Your task to perform on an android device: turn on sleep mode Image 0: 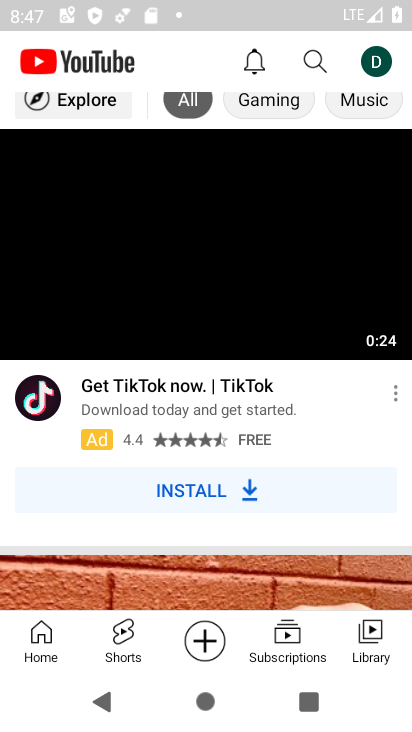
Step 0: press home button
Your task to perform on an android device: turn on sleep mode Image 1: 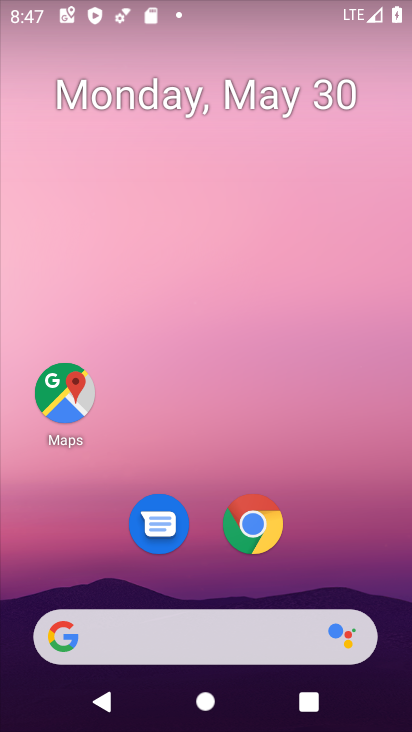
Step 1: drag from (303, 474) to (295, 1)
Your task to perform on an android device: turn on sleep mode Image 2: 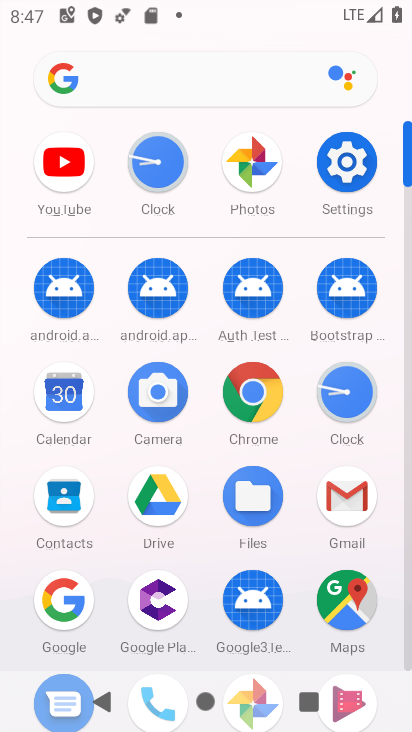
Step 2: click (349, 166)
Your task to perform on an android device: turn on sleep mode Image 3: 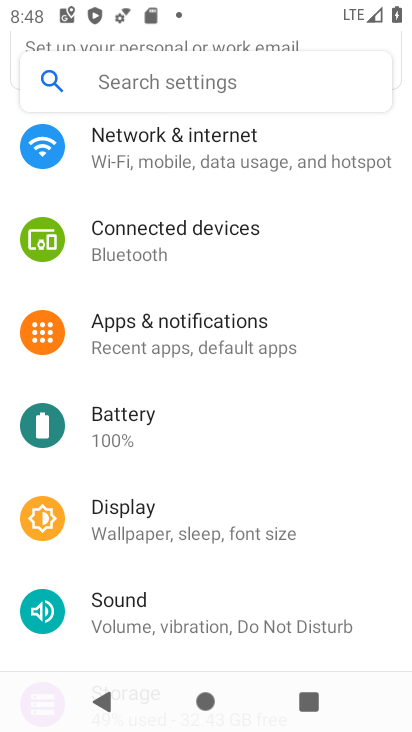
Step 3: click (202, 525)
Your task to perform on an android device: turn on sleep mode Image 4: 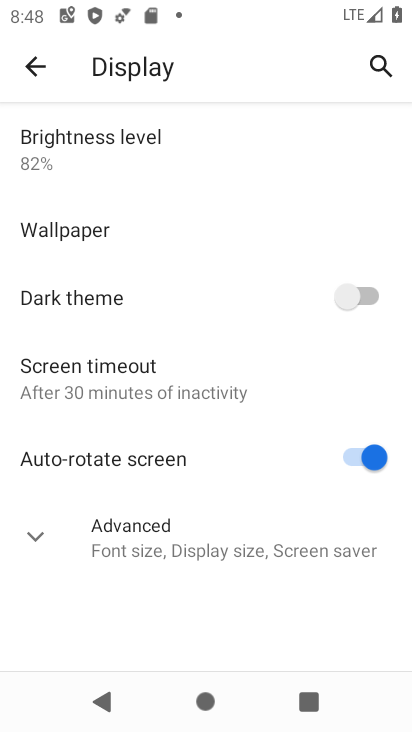
Step 4: click (32, 527)
Your task to perform on an android device: turn on sleep mode Image 5: 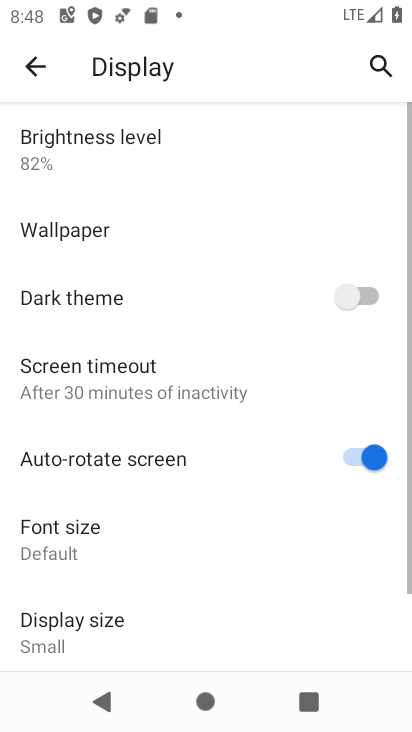
Step 5: task complete